Your task to perform on an android device: turn off data saver in the chrome app Image 0: 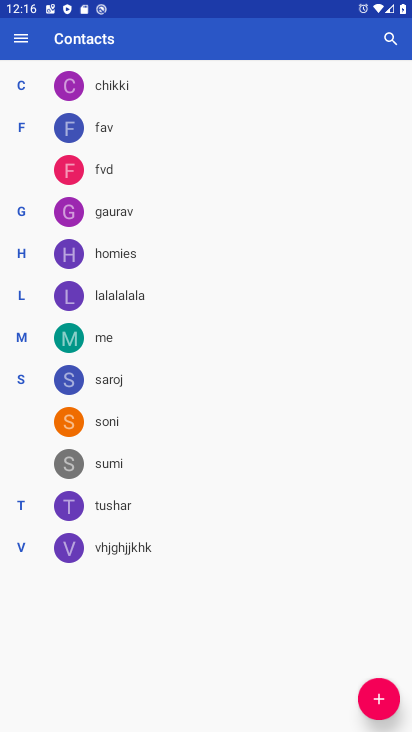
Step 0: press home button
Your task to perform on an android device: turn off data saver in the chrome app Image 1: 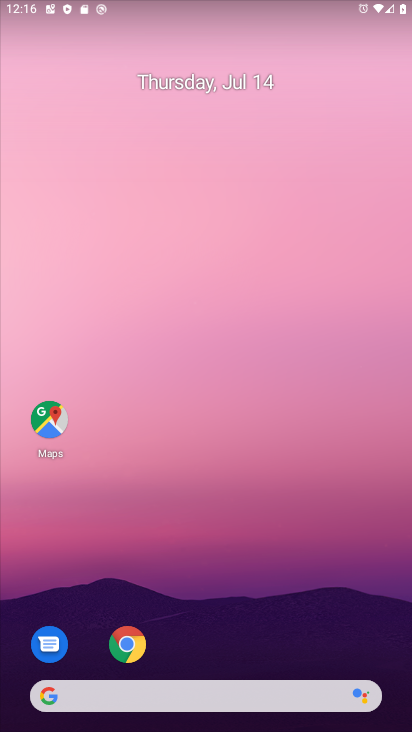
Step 1: click (118, 628)
Your task to perform on an android device: turn off data saver in the chrome app Image 2: 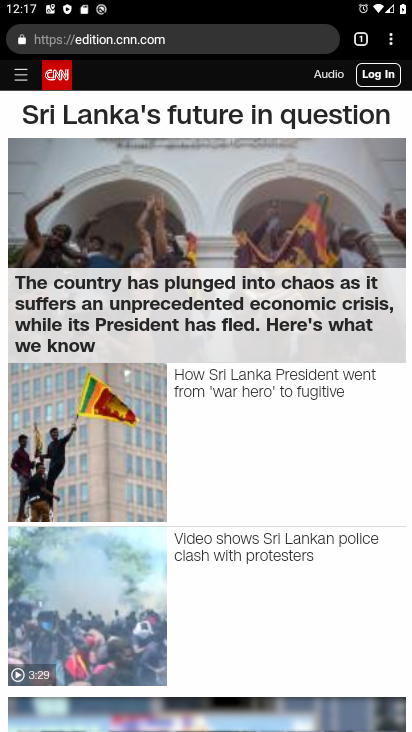
Step 2: click (392, 41)
Your task to perform on an android device: turn off data saver in the chrome app Image 3: 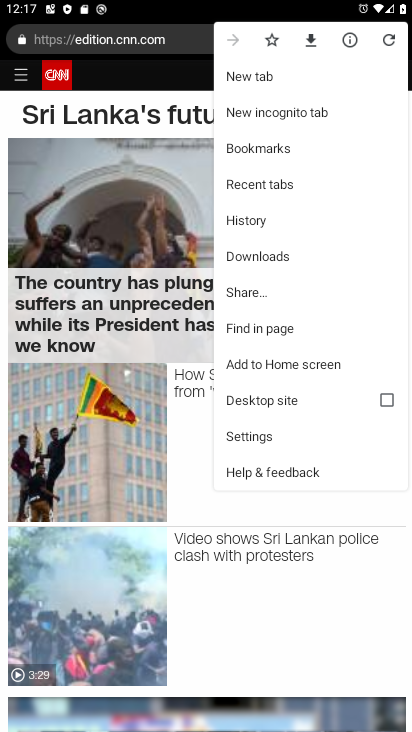
Step 3: click (247, 431)
Your task to perform on an android device: turn off data saver in the chrome app Image 4: 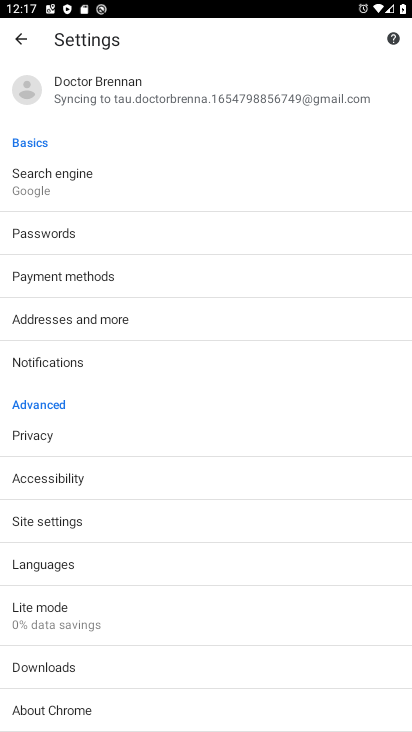
Step 4: click (78, 608)
Your task to perform on an android device: turn off data saver in the chrome app Image 5: 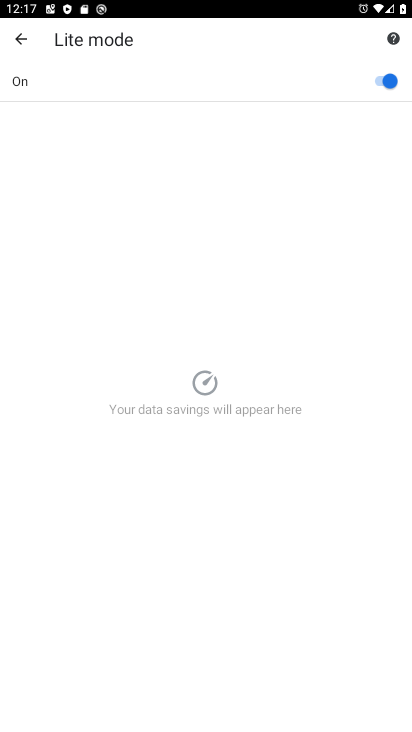
Step 5: click (382, 84)
Your task to perform on an android device: turn off data saver in the chrome app Image 6: 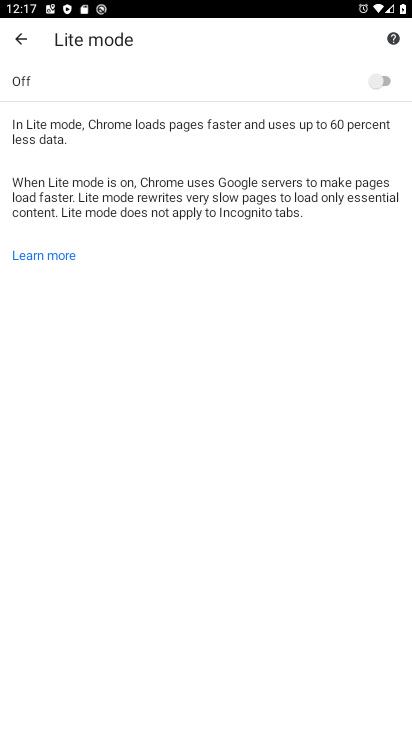
Step 6: task complete